Your task to perform on an android device: Go to Google Image 0: 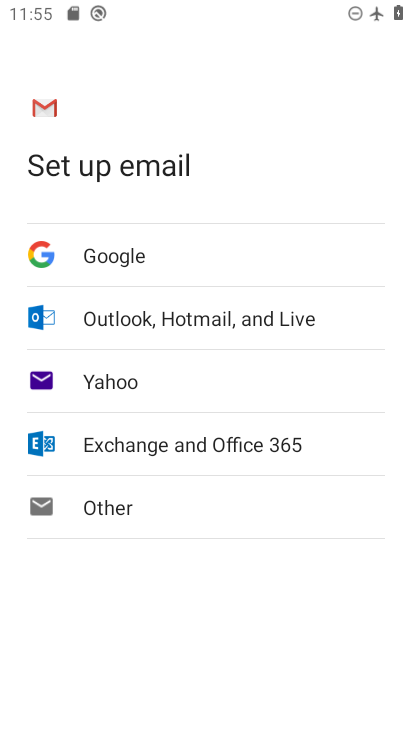
Step 0: press home button
Your task to perform on an android device: Go to Google Image 1: 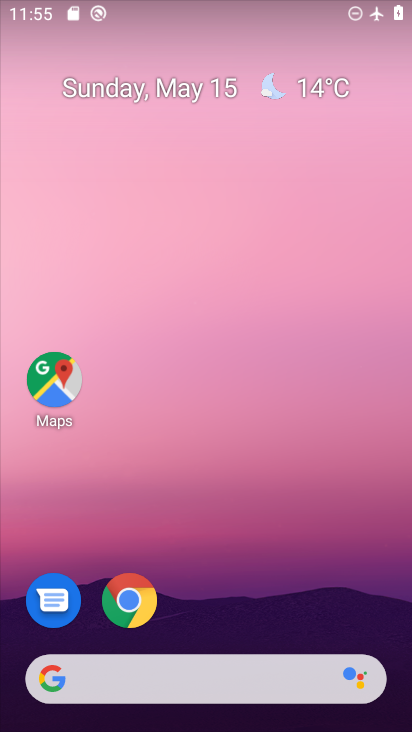
Step 1: click (135, 599)
Your task to perform on an android device: Go to Google Image 2: 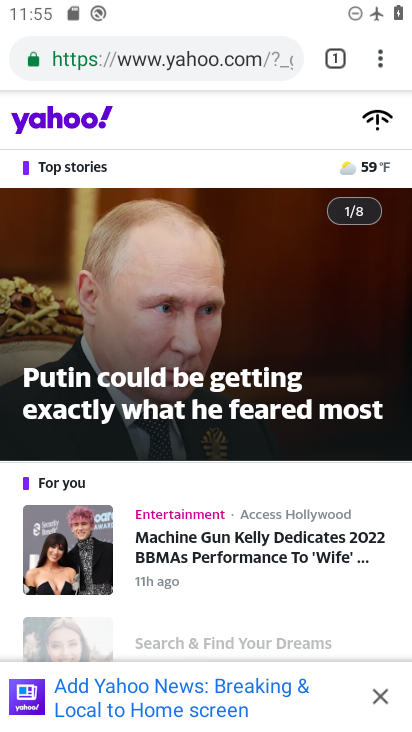
Step 2: task complete